Your task to perform on an android device: Go to Android settings Image 0: 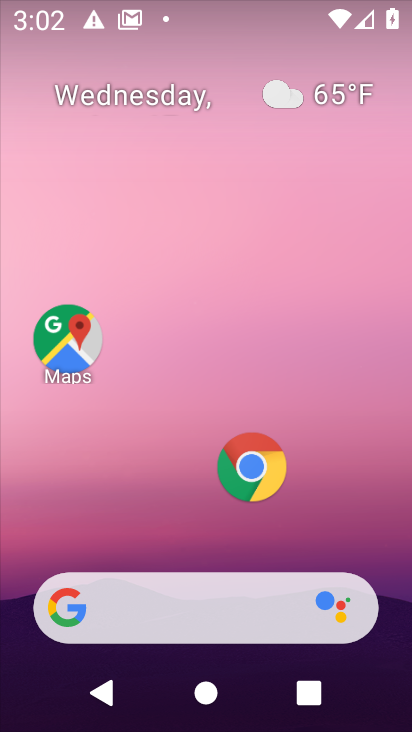
Step 0: drag from (166, 488) to (178, 122)
Your task to perform on an android device: Go to Android settings Image 1: 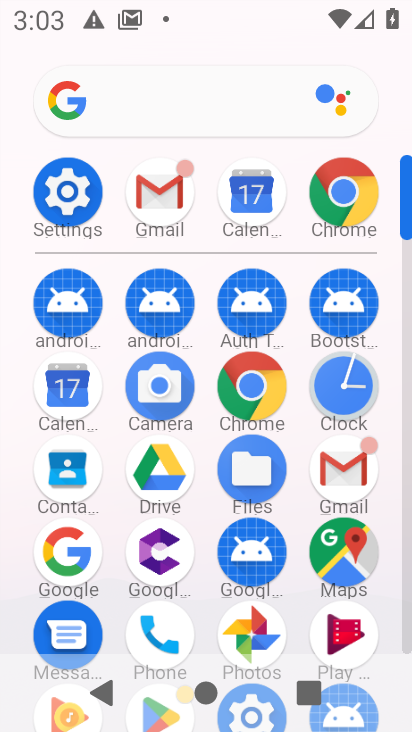
Step 1: drag from (213, 620) to (206, 445)
Your task to perform on an android device: Go to Android settings Image 2: 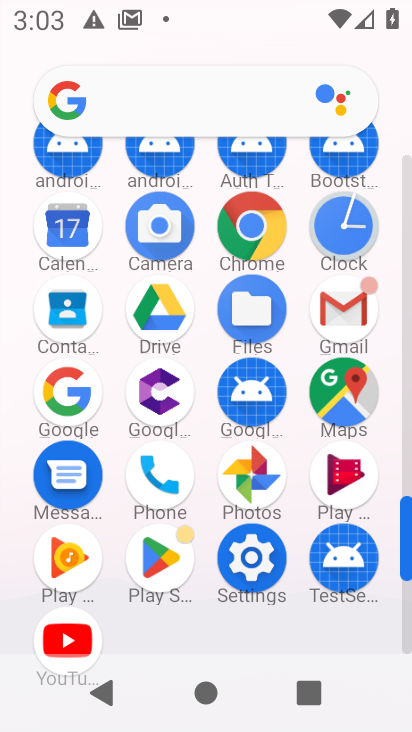
Step 2: click (237, 546)
Your task to perform on an android device: Go to Android settings Image 3: 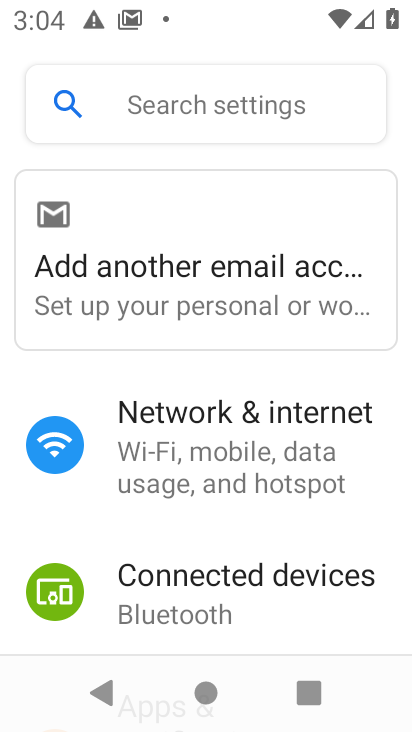
Step 3: task complete